Your task to perform on an android device: toggle notifications settings in the gmail app Image 0: 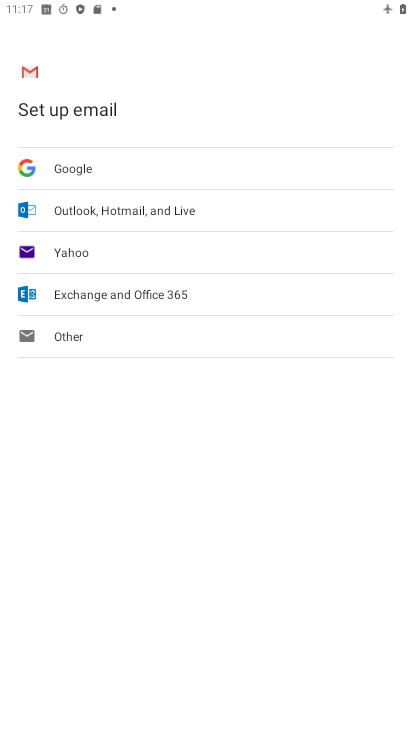
Step 0: drag from (168, 601) to (237, 215)
Your task to perform on an android device: toggle notifications settings in the gmail app Image 1: 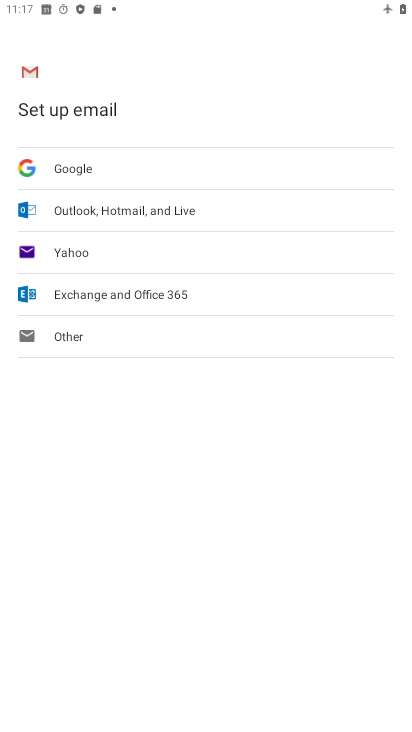
Step 1: drag from (207, 574) to (285, 246)
Your task to perform on an android device: toggle notifications settings in the gmail app Image 2: 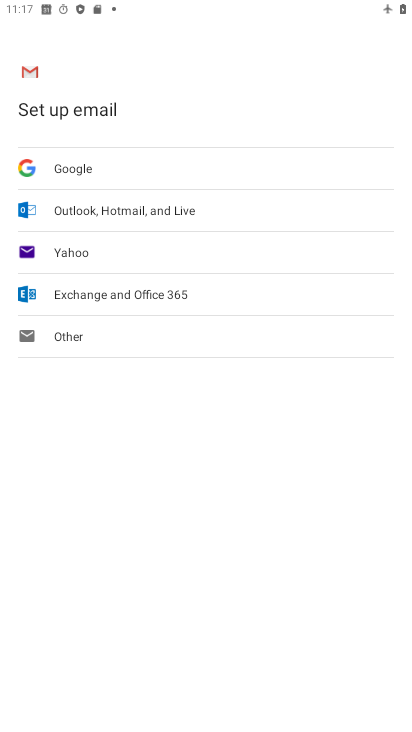
Step 2: drag from (220, 692) to (218, 117)
Your task to perform on an android device: toggle notifications settings in the gmail app Image 3: 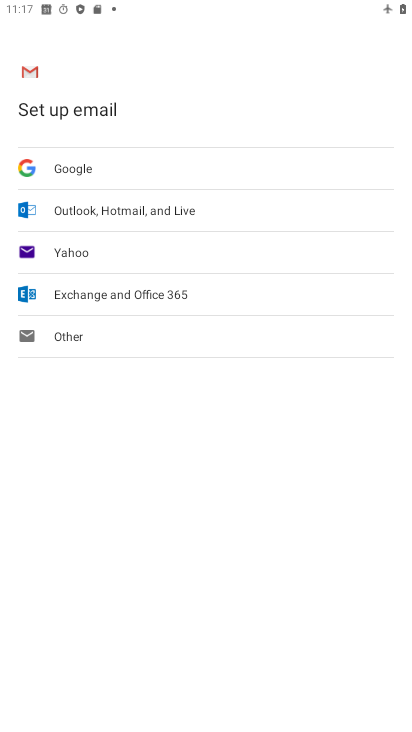
Step 3: drag from (180, 489) to (239, 129)
Your task to perform on an android device: toggle notifications settings in the gmail app Image 4: 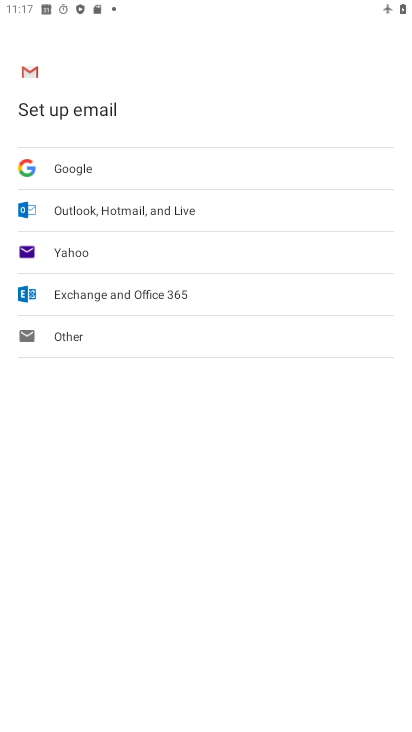
Step 4: press home button
Your task to perform on an android device: toggle notifications settings in the gmail app Image 5: 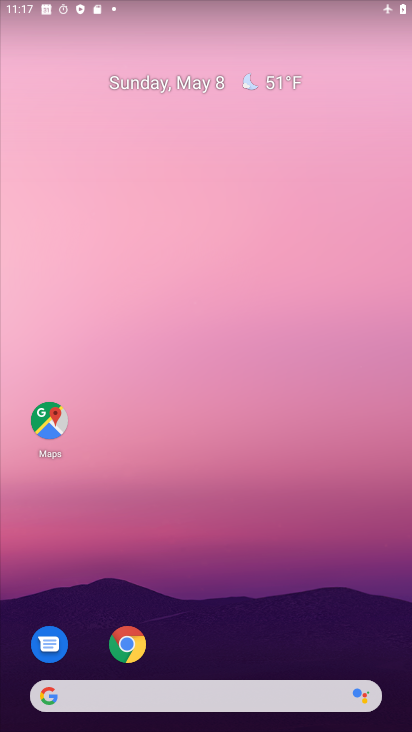
Step 5: drag from (178, 627) to (268, 30)
Your task to perform on an android device: toggle notifications settings in the gmail app Image 6: 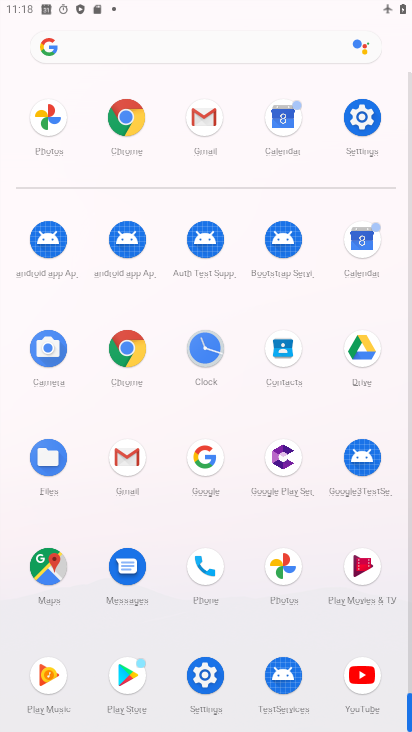
Step 6: click (110, 463)
Your task to perform on an android device: toggle notifications settings in the gmail app Image 7: 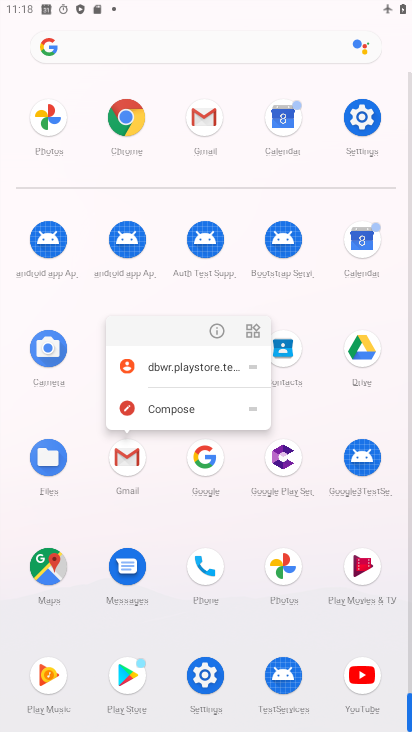
Step 7: click (219, 334)
Your task to perform on an android device: toggle notifications settings in the gmail app Image 8: 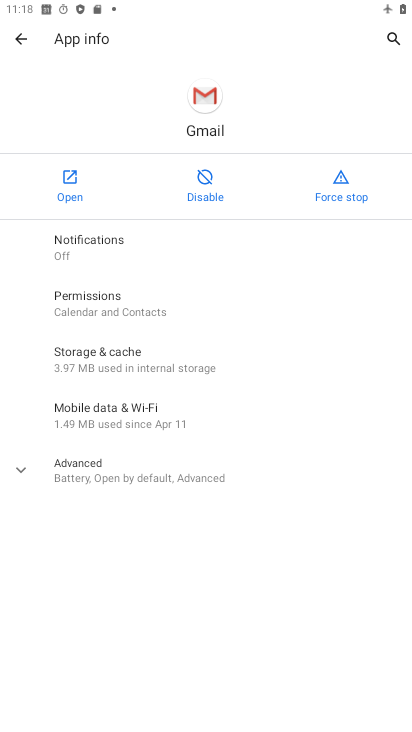
Step 8: click (71, 194)
Your task to perform on an android device: toggle notifications settings in the gmail app Image 9: 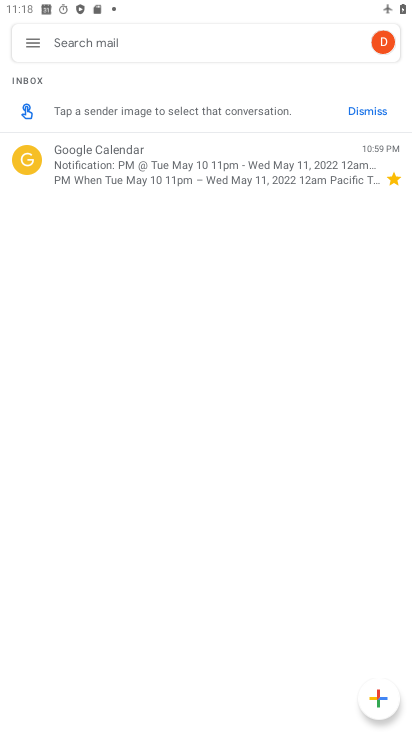
Step 9: click (30, 43)
Your task to perform on an android device: toggle notifications settings in the gmail app Image 10: 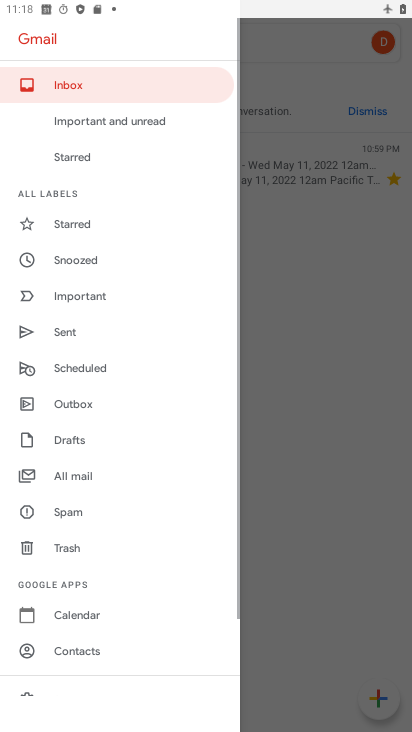
Step 10: drag from (103, 548) to (123, 203)
Your task to perform on an android device: toggle notifications settings in the gmail app Image 11: 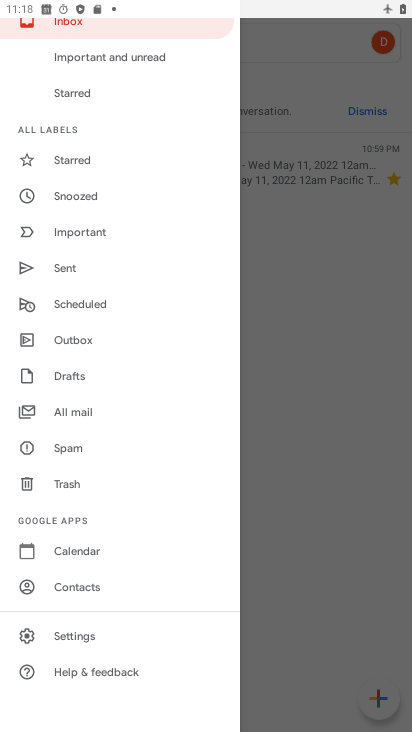
Step 11: click (56, 642)
Your task to perform on an android device: toggle notifications settings in the gmail app Image 12: 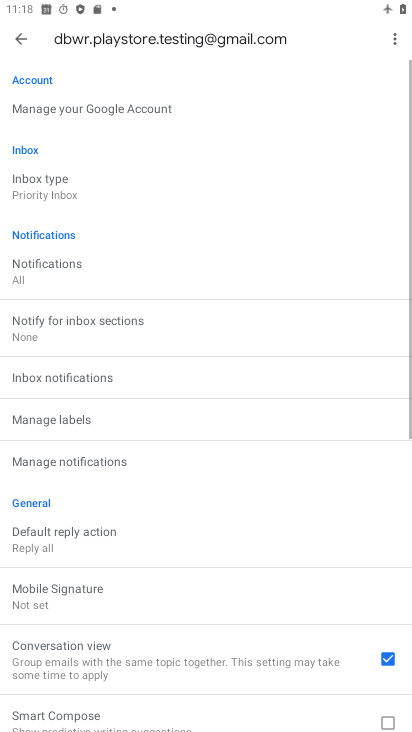
Step 12: drag from (176, 563) to (231, 100)
Your task to perform on an android device: toggle notifications settings in the gmail app Image 13: 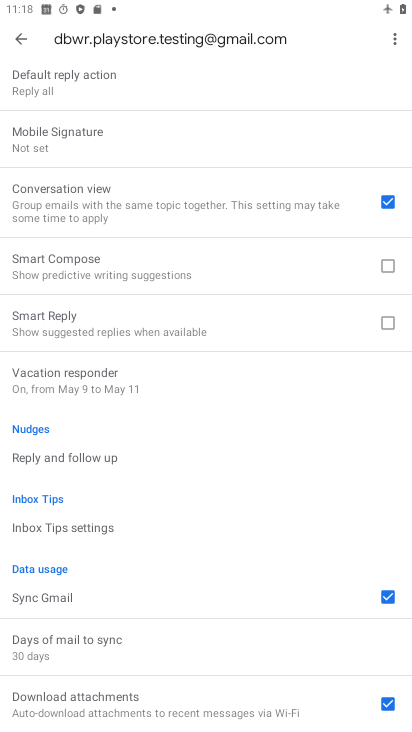
Step 13: drag from (150, 563) to (206, 234)
Your task to perform on an android device: toggle notifications settings in the gmail app Image 14: 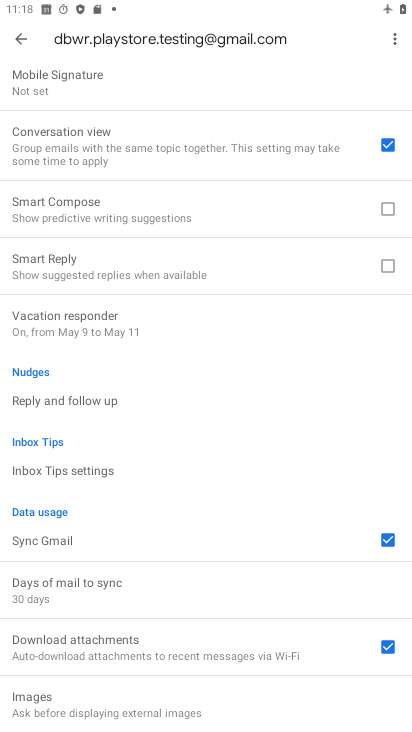
Step 14: drag from (172, 266) to (152, 667)
Your task to perform on an android device: toggle notifications settings in the gmail app Image 15: 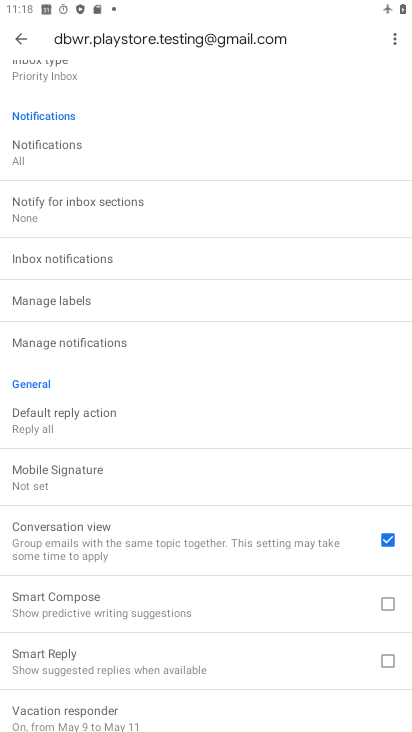
Step 15: click (132, 334)
Your task to perform on an android device: toggle notifications settings in the gmail app Image 16: 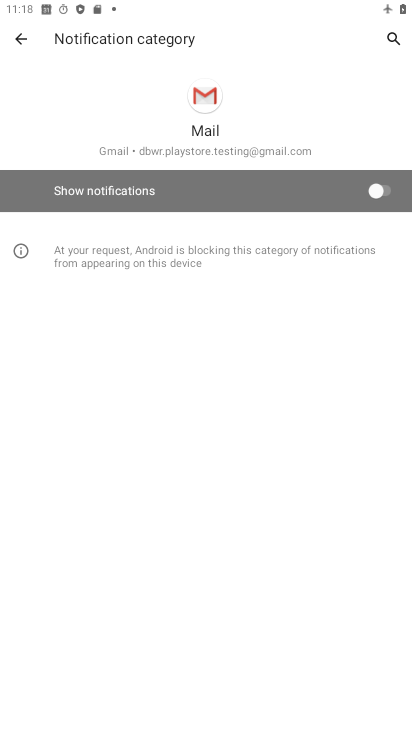
Step 16: click (350, 201)
Your task to perform on an android device: toggle notifications settings in the gmail app Image 17: 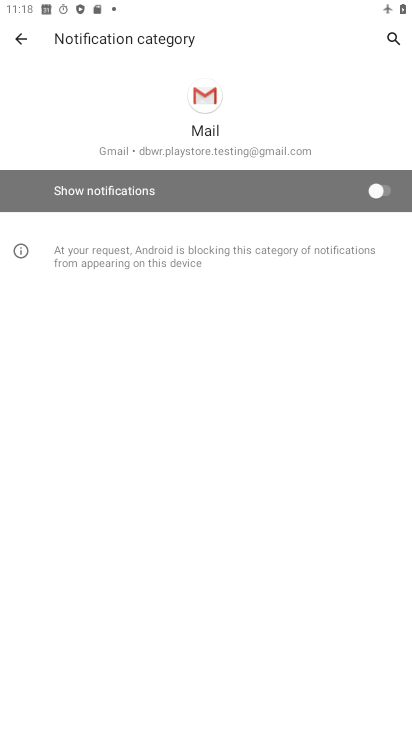
Step 17: task complete